Your task to perform on an android device: open the mobile data screen to see how much data has been used Image 0: 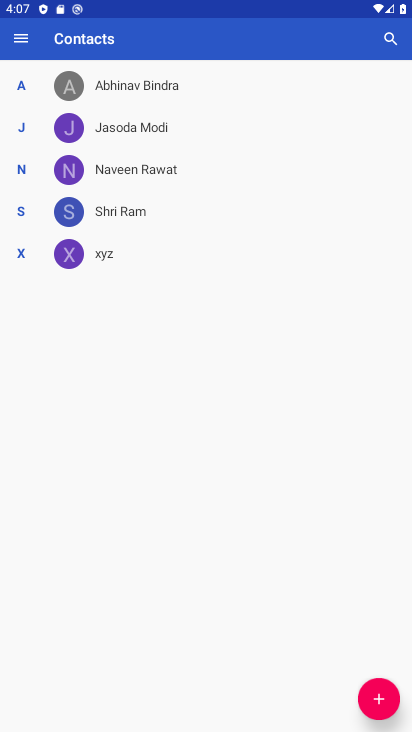
Step 0: press home button
Your task to perform on an android device: open the mobile data screen to see how much data has been used Image 1: 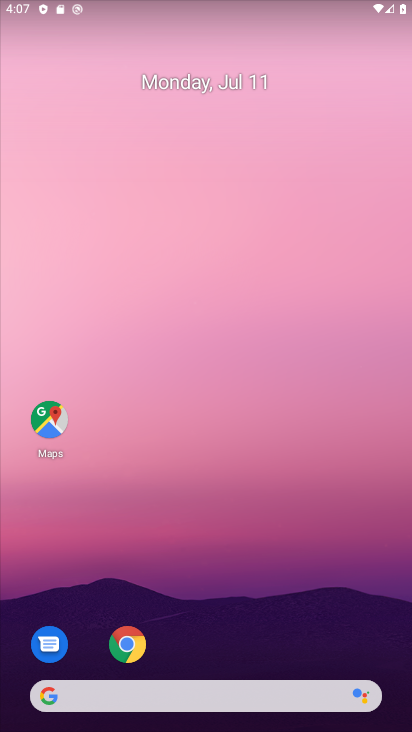
Step 1: drag from (243, 626) to (226, 59)
Your task to perform on an android device: open the mobile data screen to see how much data has been used Image 2: 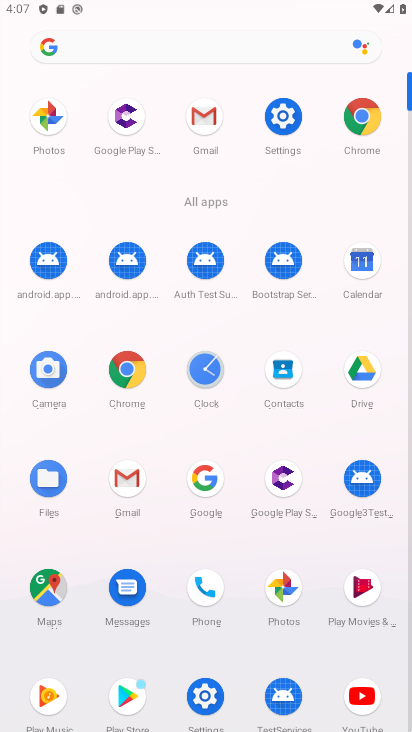
Step 2: click (272, 124)
Your task to perform on an android device: open the mobile data screen to see how much data has been used Image 3: 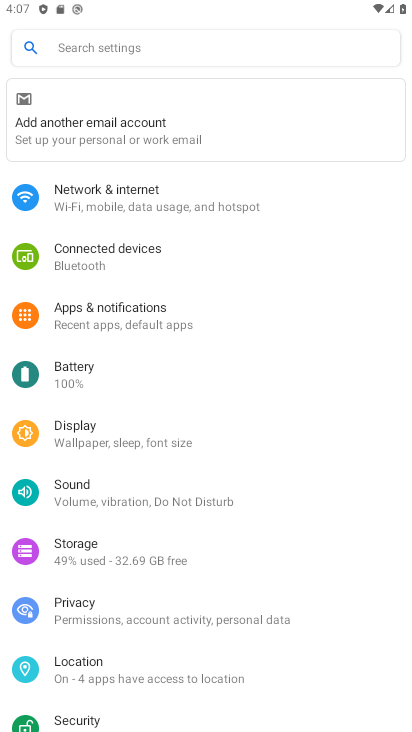
Step 3: click (143, 207)
Your task to perform on an android device: open the mobile data screen to see how much data has been used Image 4: 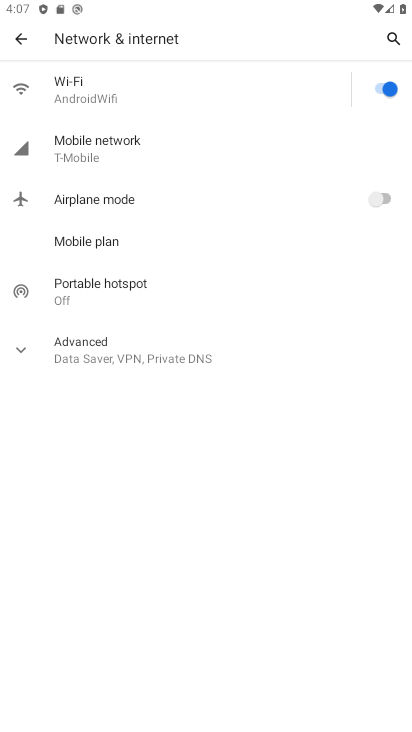
Step 4: click (97, 157)
Your task to perform on an android device: open the mobile data screen to see how much data has been used Image 5: 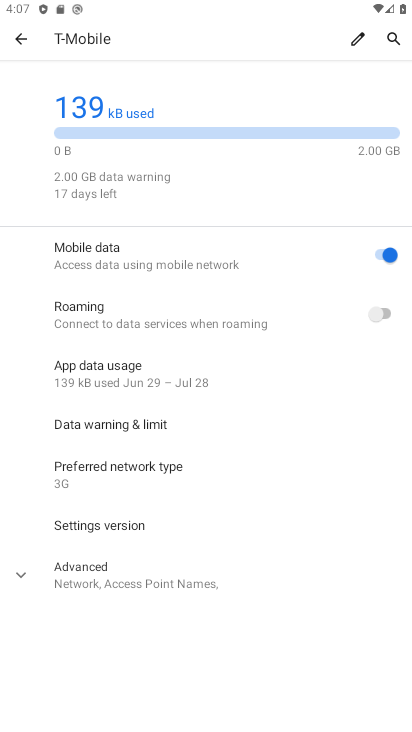
Step 5: click (115, 374)
Your task to perform on an android device: open the mobile data screen to see how much data has been used Image 6: 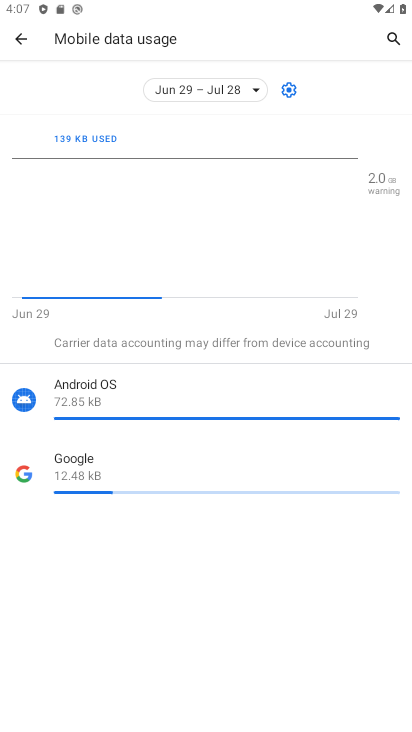
Step 6: task complete